Your task to perform on an android device: set an alarm Image 0: 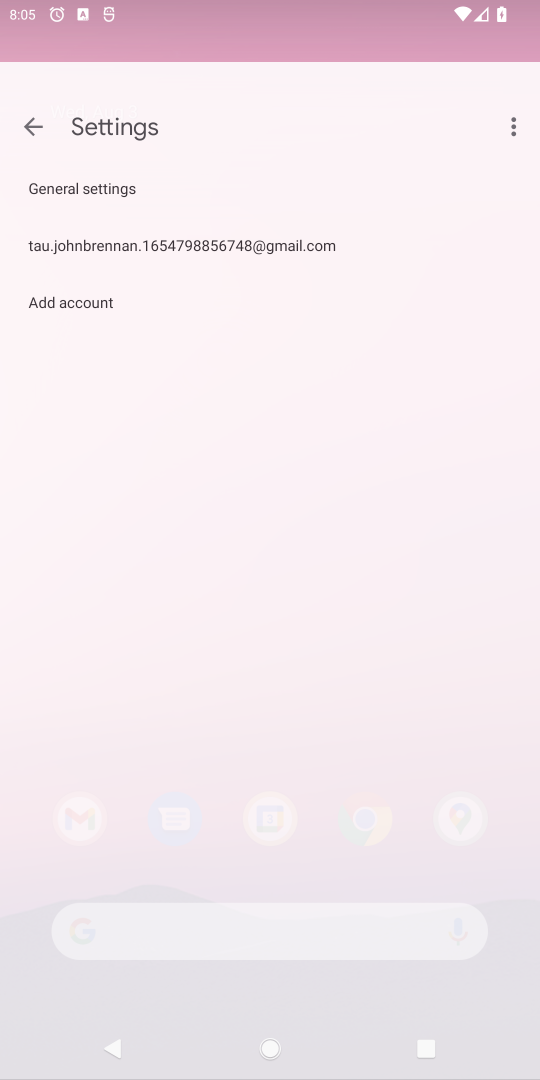
Step 0: press home button
Your task to perform on an android device: set an alarm Image 1: 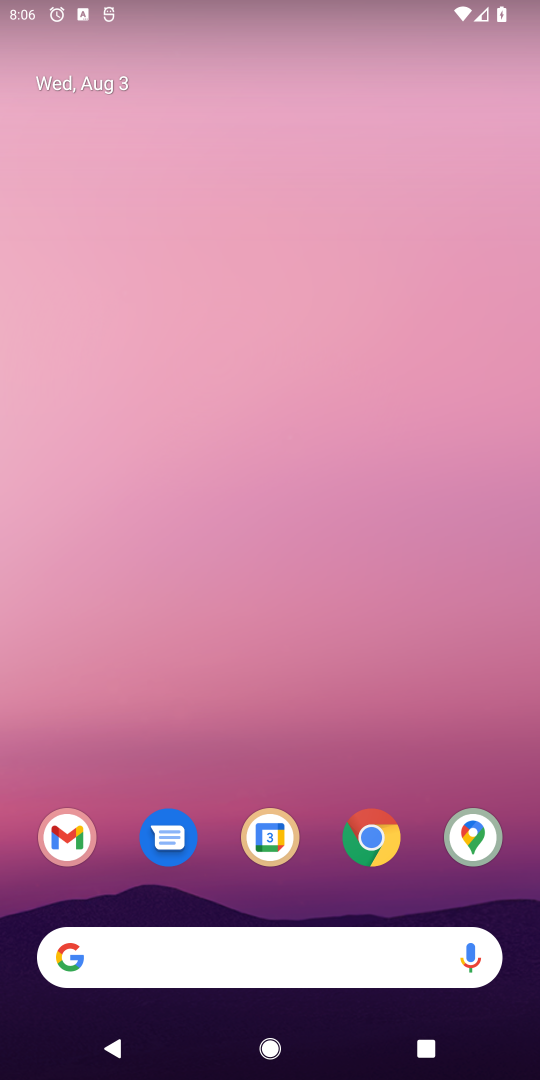
Step 1: drag from (254, 910) to (323, 218)
Your task to perform on an android device: set an alarm Image 2: 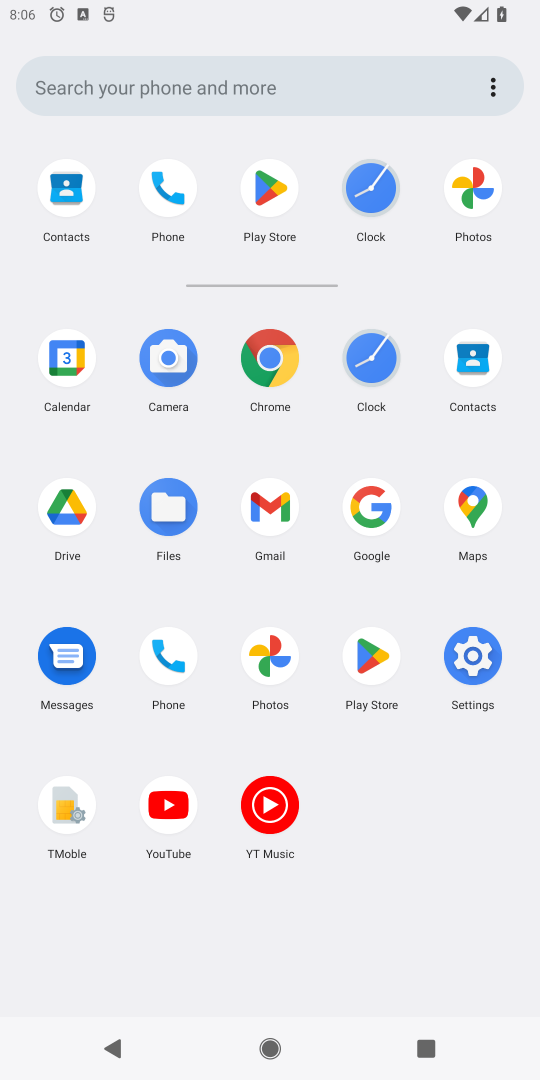
Step 2: click (376, 204)
Your task to perform on an android device: set an alarm Image 3: 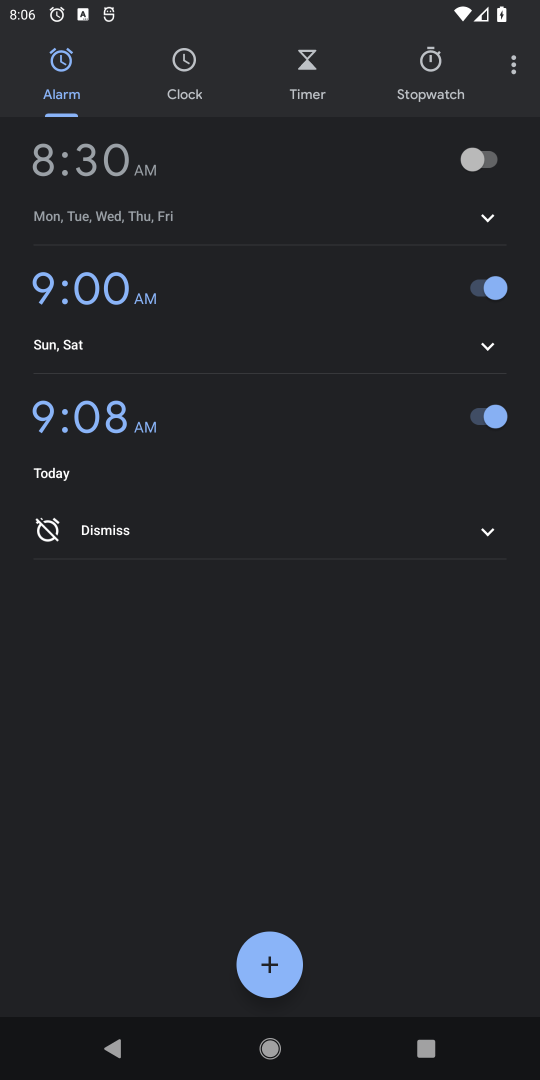
Step 3: click (69, 75)
Your task to perform on an android device: set an alarm Image 4: 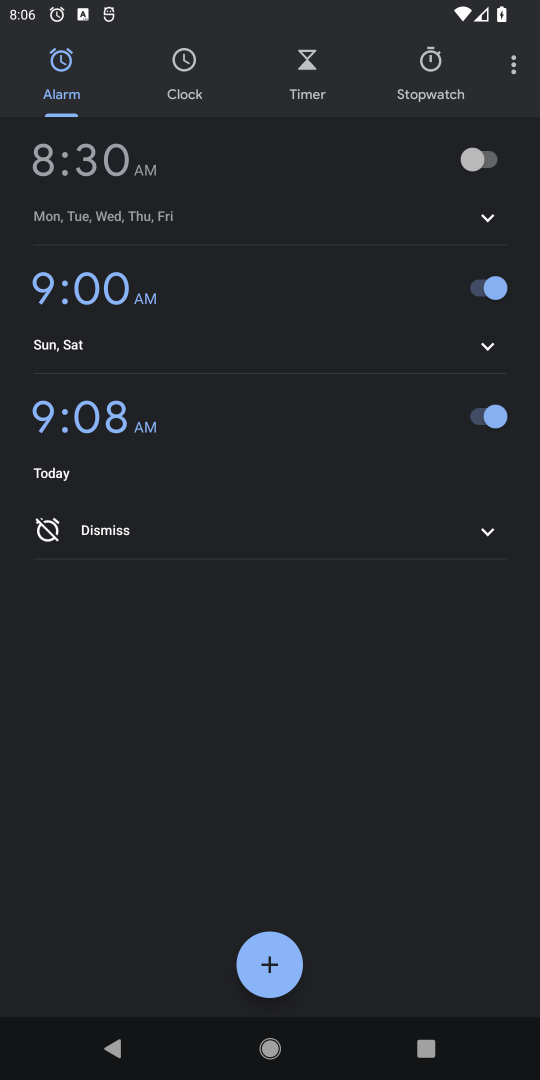
Step 4: click (474, 158)
Your task to perform on an android device: set an alarm Image 5: 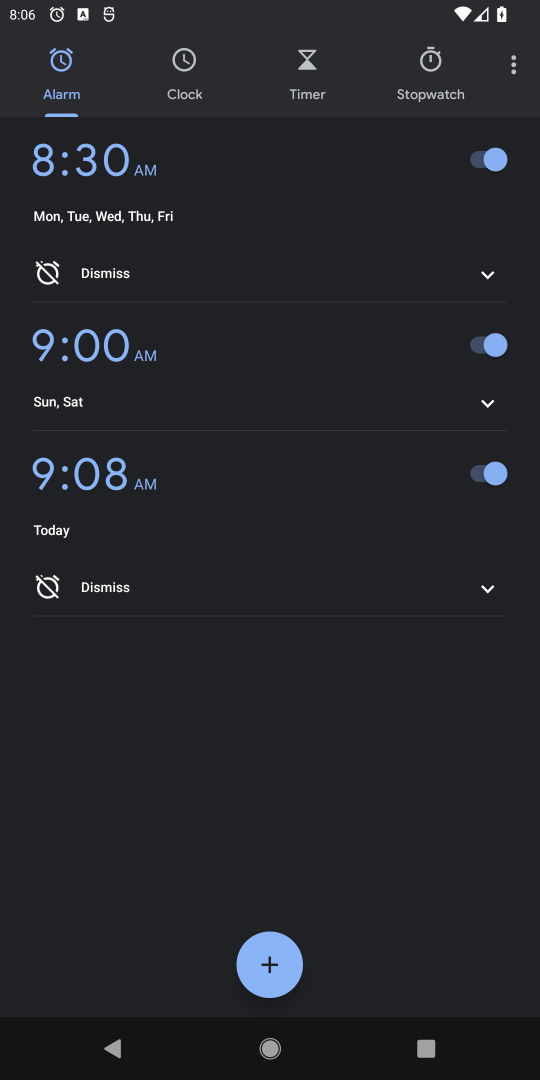
Step 5: task complete